Your task to perform on an android device: Turn on the flashlight Image 0: 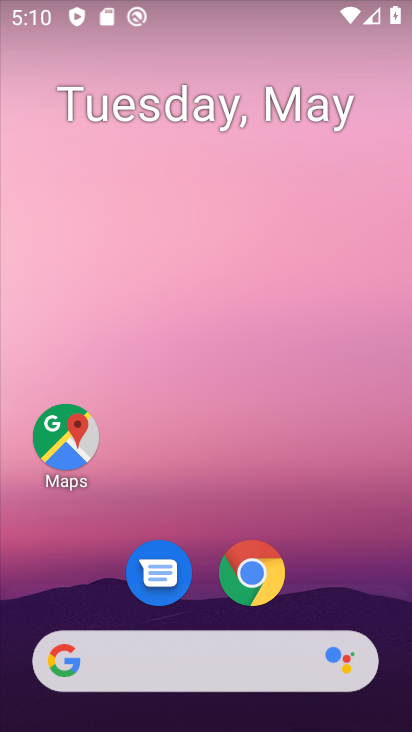
Step 0: drag from (318, 450) to (251, 24)
Your task to perform on an android device: Turn on the flashlight Image 1: 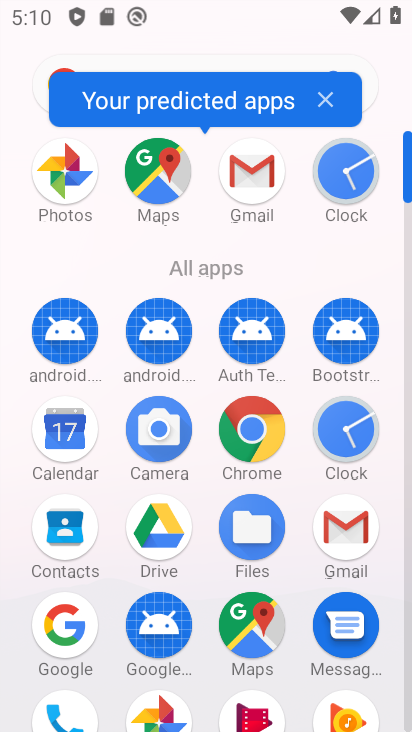
Step 1: drag from (22, 478) to (17, 137)
Your task to perform on an android device: Turn on the flashlight Image 2: 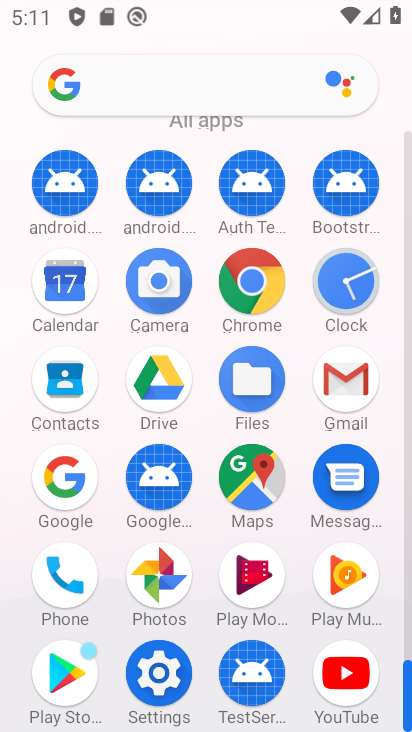
Step 2: drag from (1, 563) to (16, 231)
Your task to perform on an android device: Turn on the flashlight Image 3: 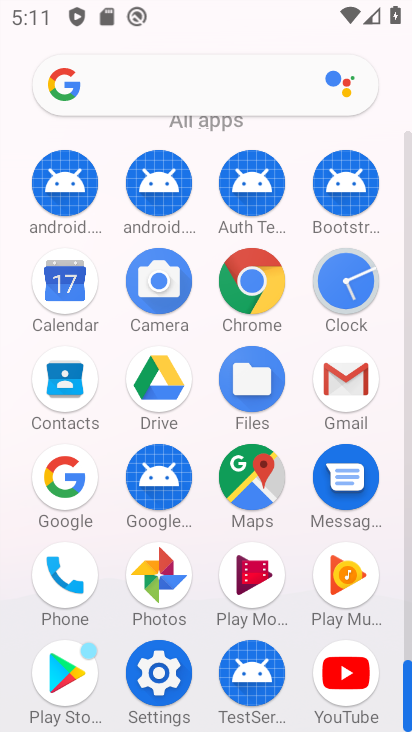
Step 3: click (157, 667)
Your task to perform on an android device: Turn on the flashlight Image 4: 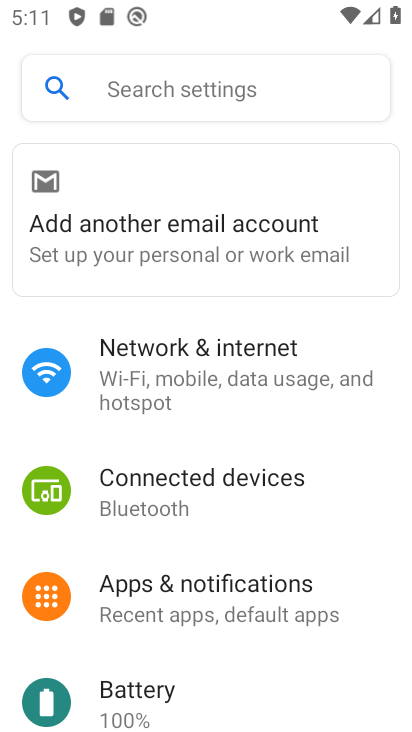
Step 4: click (166, 354)
Your task to perform on an android device: Turn on the flashlight Image 5: 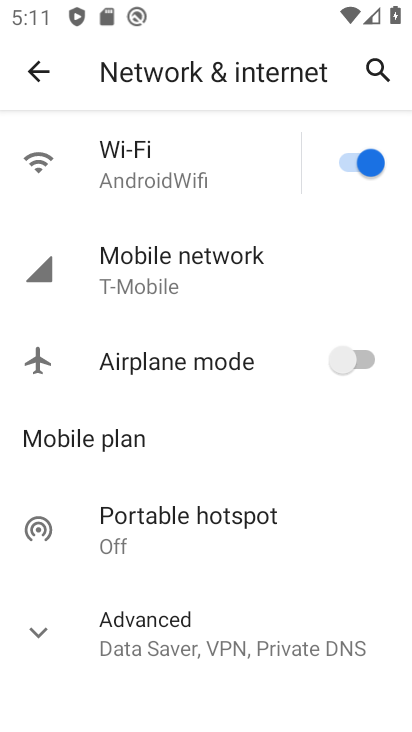
Step 5: click (50, 625)
Your task to perform on an android device: Turn on the flashlight Image 6: 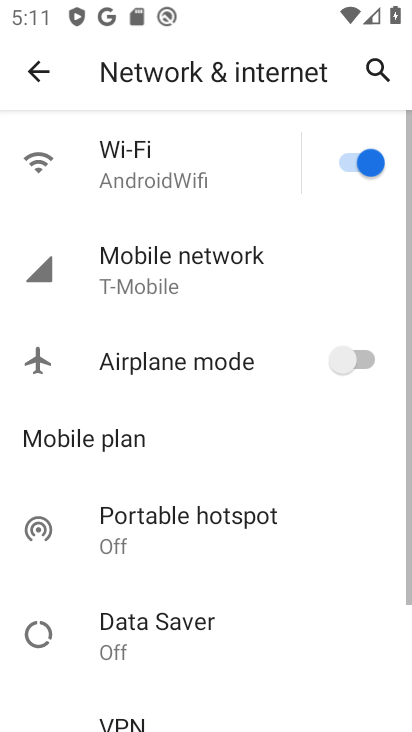
Step 6: task complete